Your task to perform on an android device: turn off location Image 0: 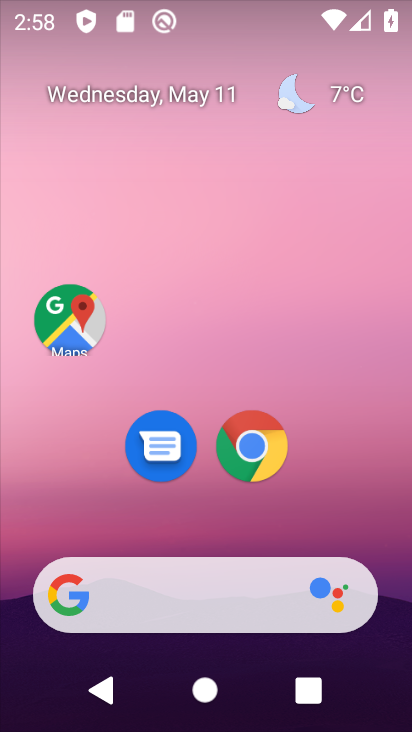
Step 0: drag from (348, 642) to (261, 138)
Your task to perform on an android device: turn off location Image 1: 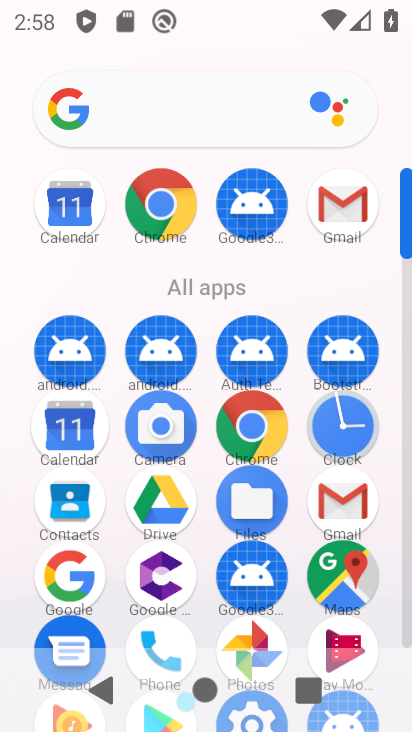
Step 1: drag from (300, 488) to (250, 243)
Your task to perform on an android device: turn off location Image 2: 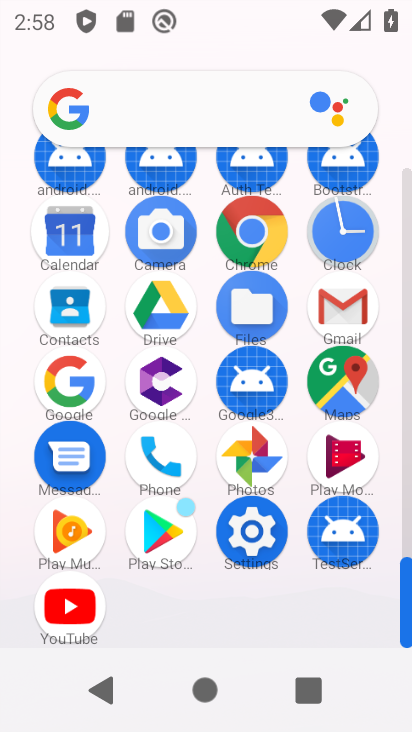
Step 2: drag from (323, 528) to (298, 281)
Your task to perform on an android device: turn off location Image 3: 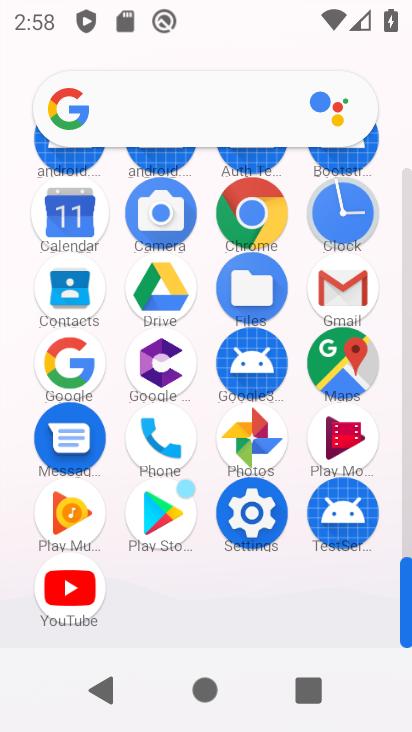
Step 3: drag from (291, 405) to (315, 239)
Your task to perform on an android device: turn off location Image 4: 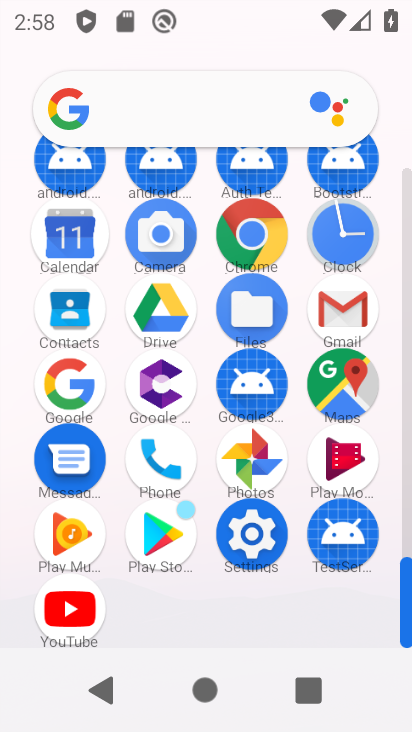
Step 4: click (256, 521)
Your task to perform on an android device: turn off location Image 5: 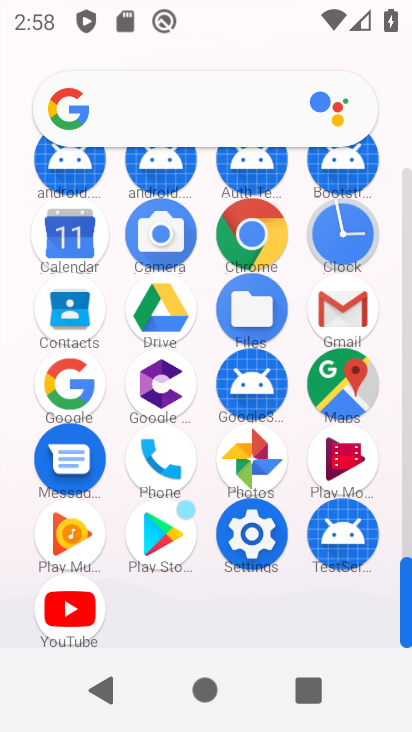
Step 5: click (246, 543)
Your task to perform on an android device: turn off location Image 6: 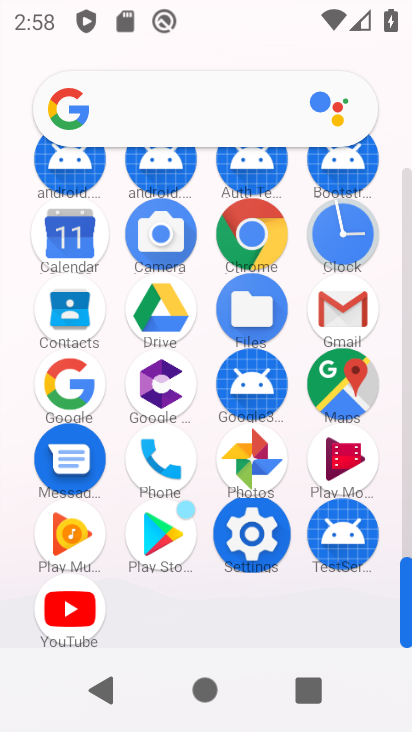
Step 6: click (247, 543)
Your task to perform on an android device: turn off location Image 7: 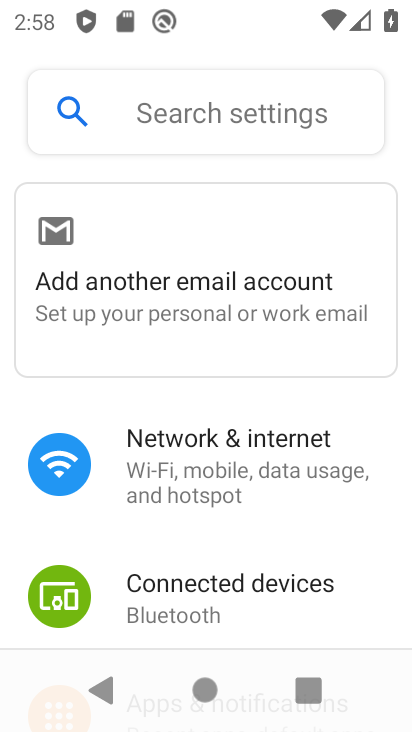
Step 7: drag from (199, 576) to (220, 142)
Your task to perform on an android device: turn off location Image 8: 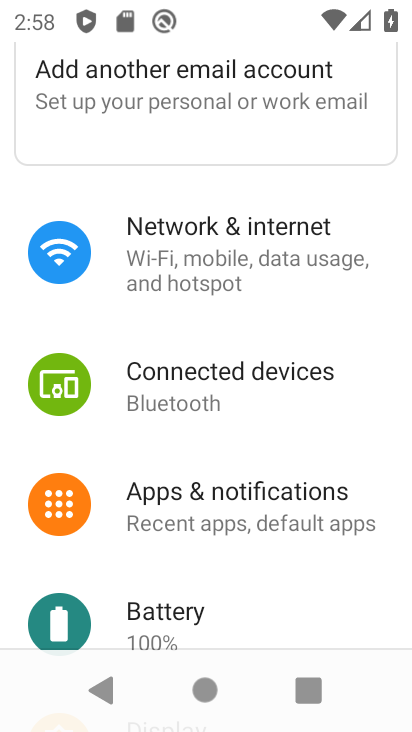
Step 8: drag from (276, 442) to (262, 295)
Your task to perform on an android device: turn off location Image 9: 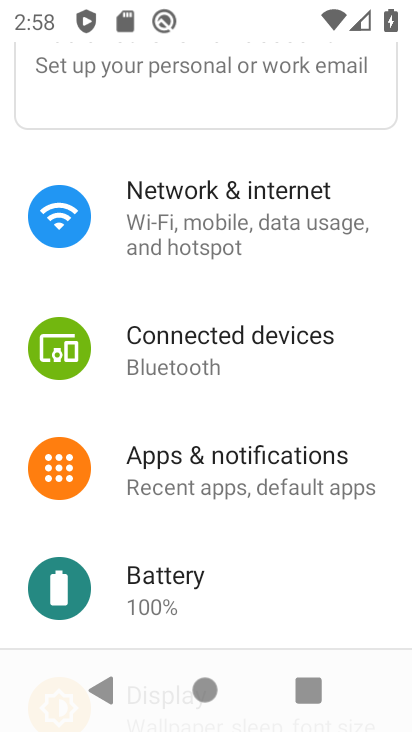
Step 9: drag from (207, 477) to (126, 254)
Your task to perform on an android device: turn off location Image 10: 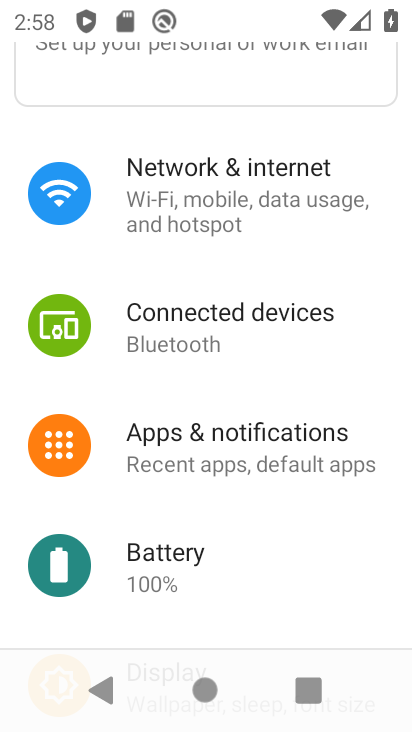
Step 10: drag from (256, 527) to (252, 192)
Your task to perform on an android device: turn off location Image 11: 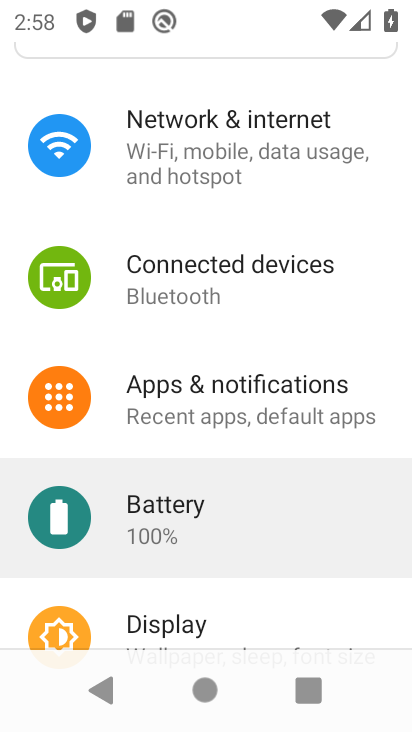
Step 11: drag from (310, 475) to (303, 223)
Your task to perform on an android device: turn off location Image 12: 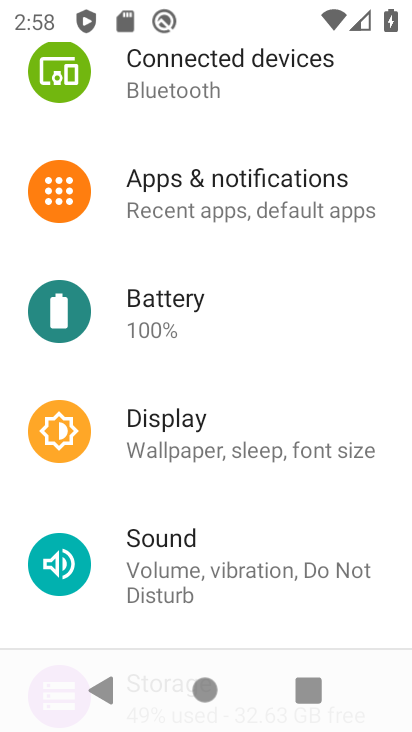
Step 12: drag from (286, 418) to (278, 189)
Your task to perform on an android device: turn off location Image 13: 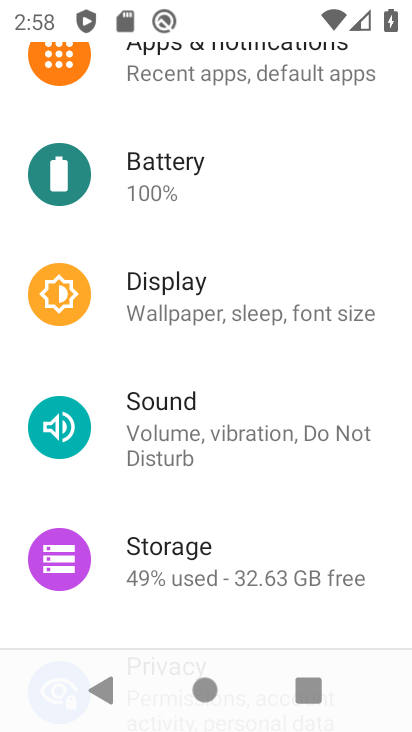
Step 13: drag from (253, 372) to (252, 158)
Your task to perform on an android device: turn off location Image 14: 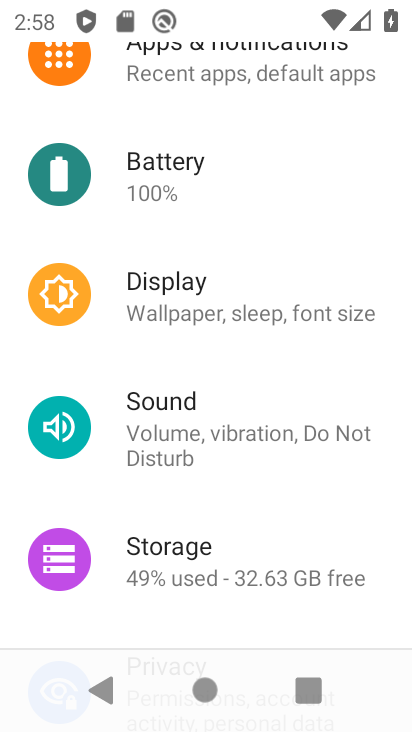
Step 14: drag from (246, 376) to (246, 83)
Your task to perform on an android device: turn off location Image 15: 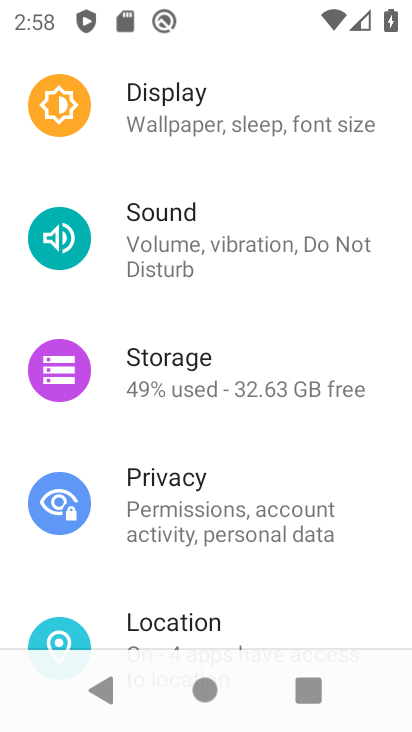
Step 15: drag from (206, 375) to (259, 32)
Your task to perform on an android device: turn off location Image 16: 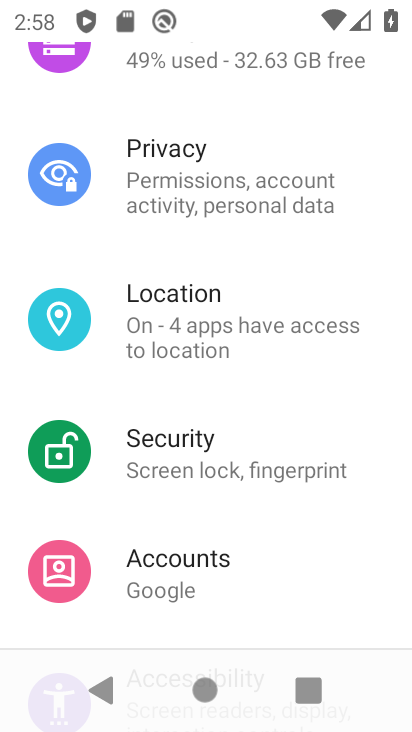
Step 16: drag from (233, 361) to (252, 150)
Your task to perform on an android device: turn off location Image 17: 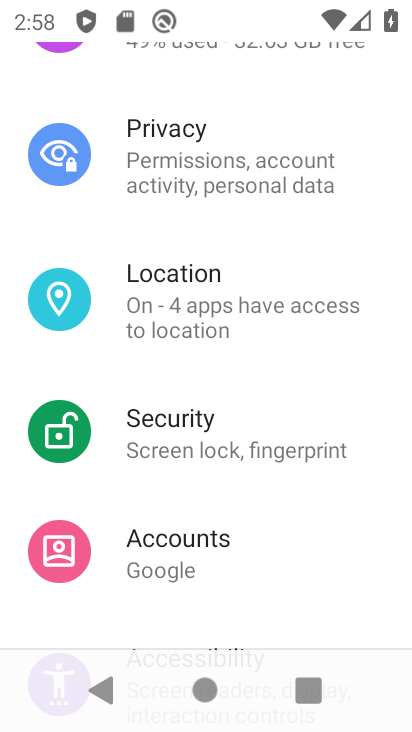
Step 17: click (192, 314)
Your task to perform on an android device: turn off location Image 18: 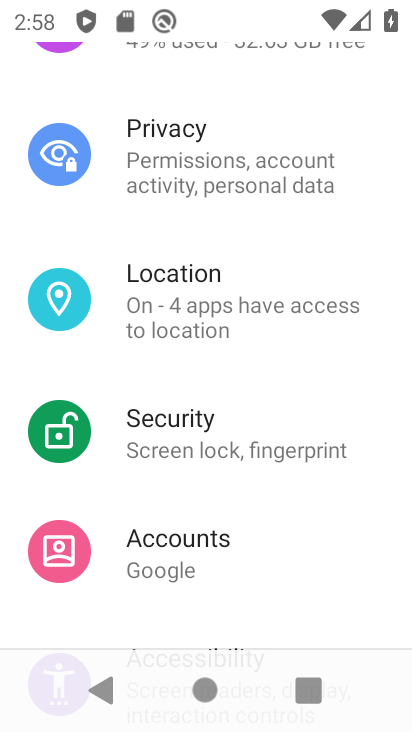
Step 18: click (192, 313)
Your task to perform on an android device: turn off location Image 19: 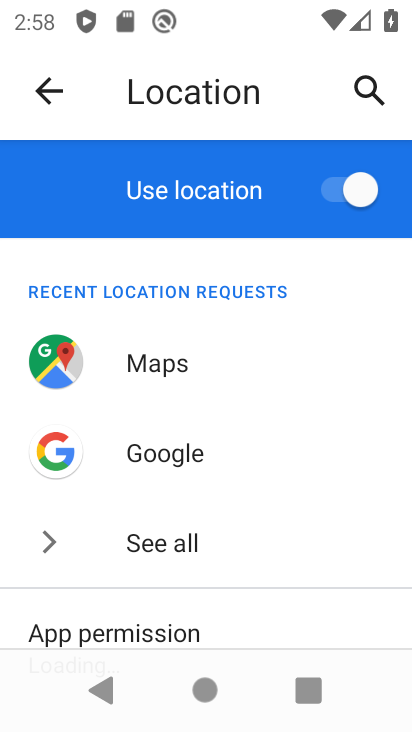
Step 19: click (342, 188)
Your task to perform on an android device: turn off location Image 20: 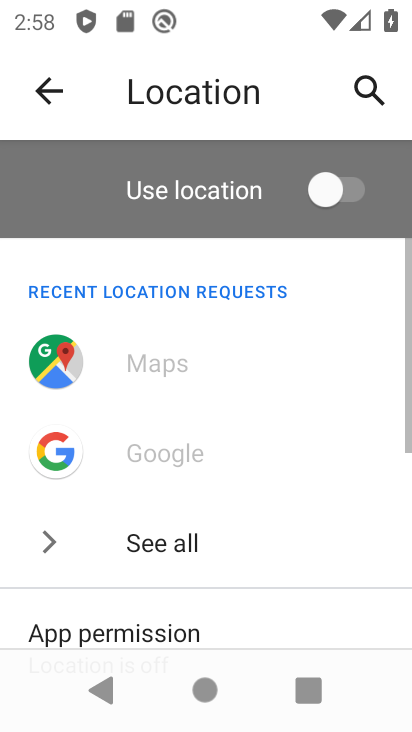
Step 20: task complete